Your task to perform on an android device: empty trash in google photos Image 0: 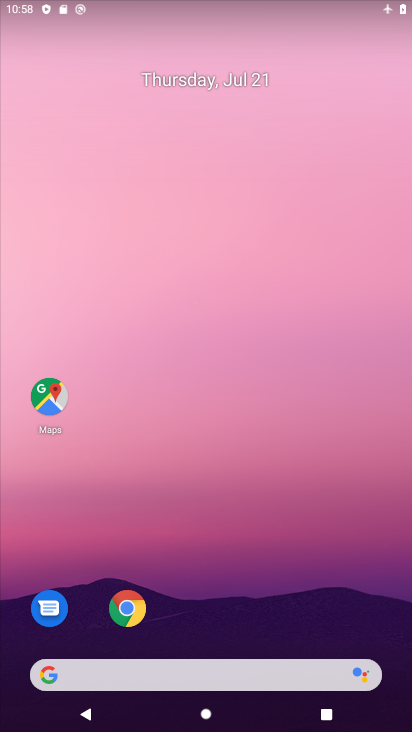
Step 0: drag from (292, 603) to (246, 251)
Your task to perform on an android device: empty trash in google photos Image 1: 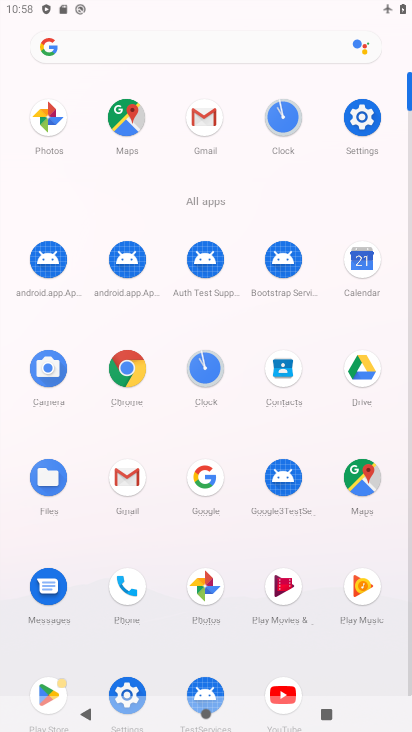
Step 1: click (208, 589)
Your task to perform on an android device: empty trash in google photos Image 2: 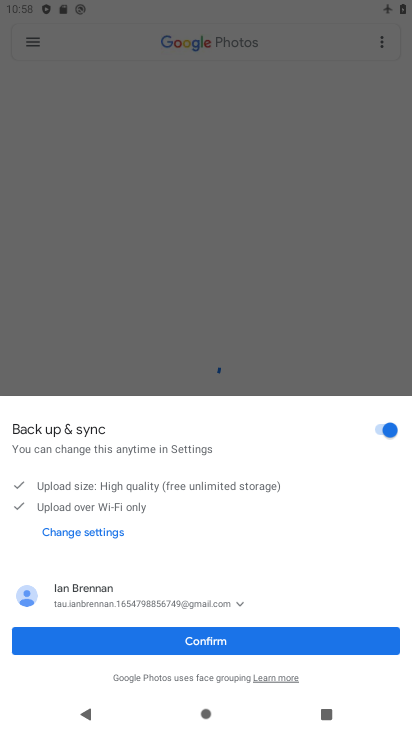
Step 2: click (298, 648)
Your task to perform on an android device: empty trash in google photos Image 3: 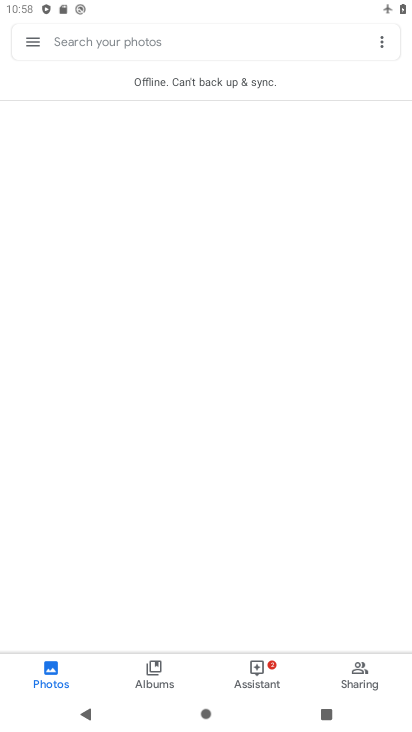
Step 3: click (34, 48)
Your task to perform on an android device: empty trash in google photos Image 4: 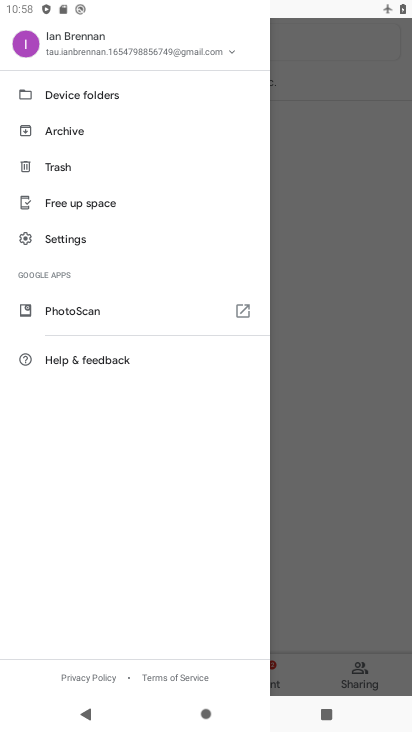
Step 4: click (60, 162)
Your task to perform on an android device: empty trash in google photos Image 5: 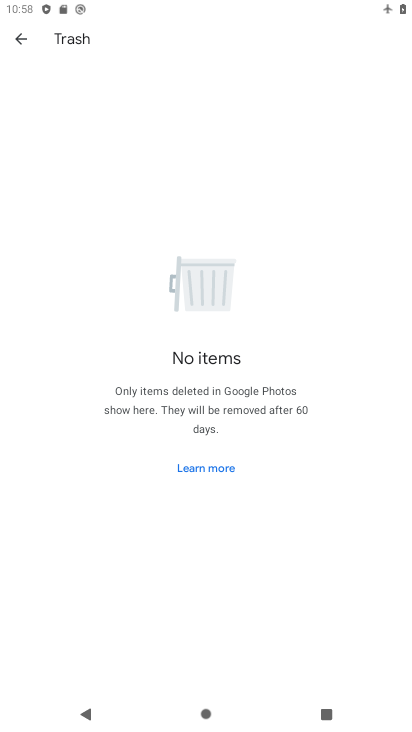
Step 5: task complete